Your task to perform on an android device: Open Amazon Image 0: 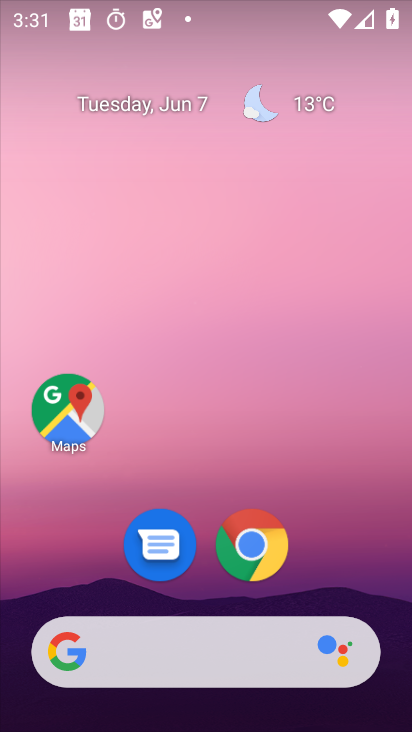
Step 0: click (255, 553)
Your task to perform on an android device: Open Amazon Image 1: 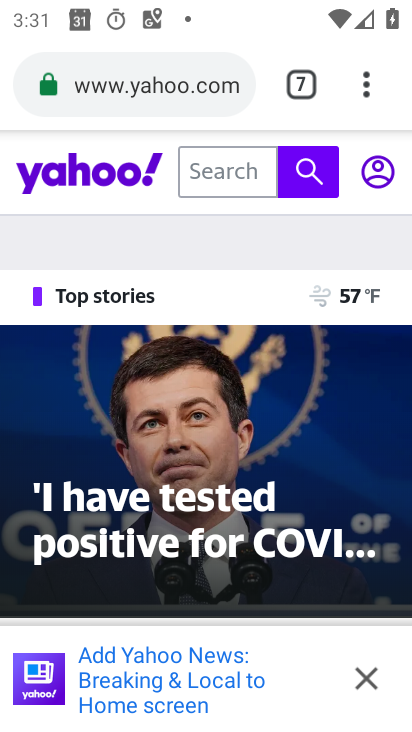
Step 1: click (302, 83)
Your task to perform on an android device: Open Amazon Image 2: 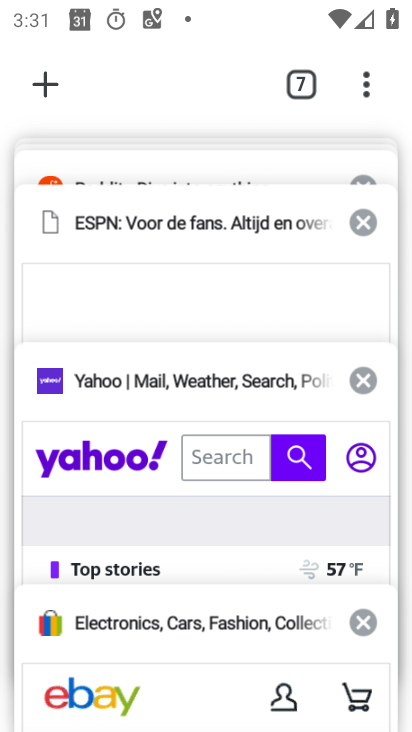
Step 2: drag from (219, 155) to (206, 638)
Your task to perform on an android device: Open Amazon Image 3: 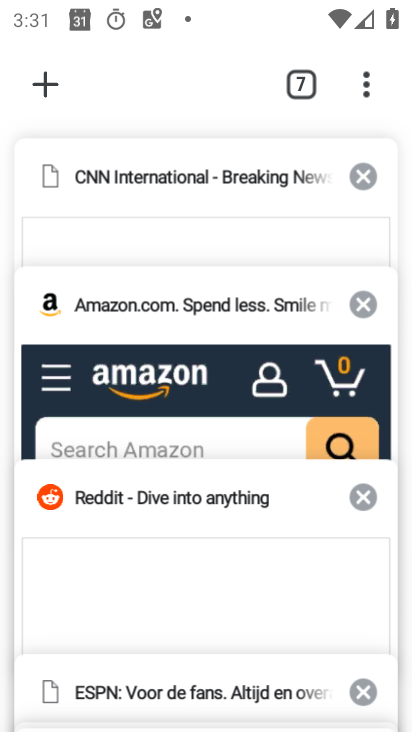
Step 3: click (182, 320)
Your task to perform on an android device: Open Amazon Image 4: 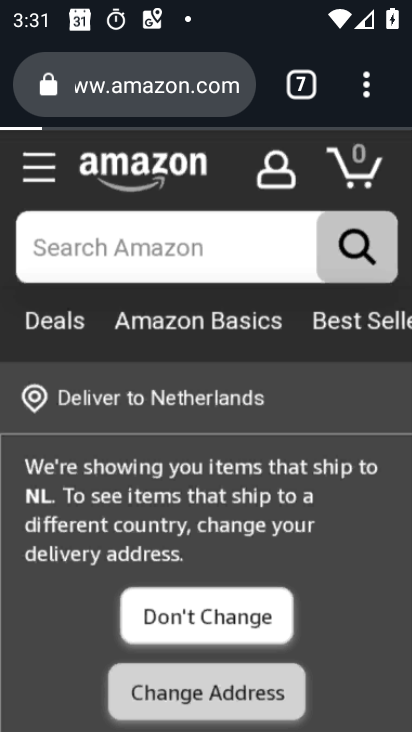
Step 4: task complete